Your task to perform on an android device: Clear the shopping cart on newegg. Image 0: 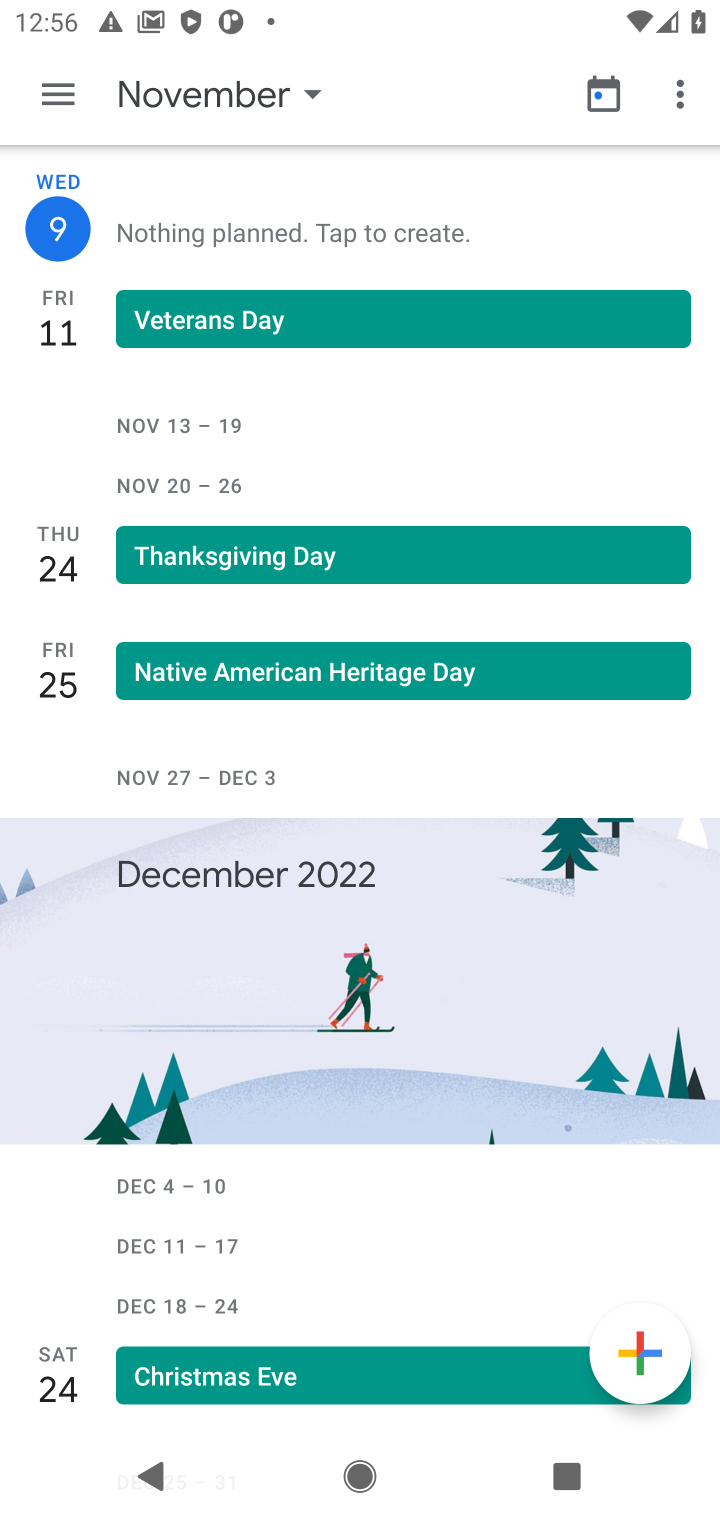
Step 0: press home button
Your task to perform on an android device: Clear the shopping cart on newegg. Image 1: 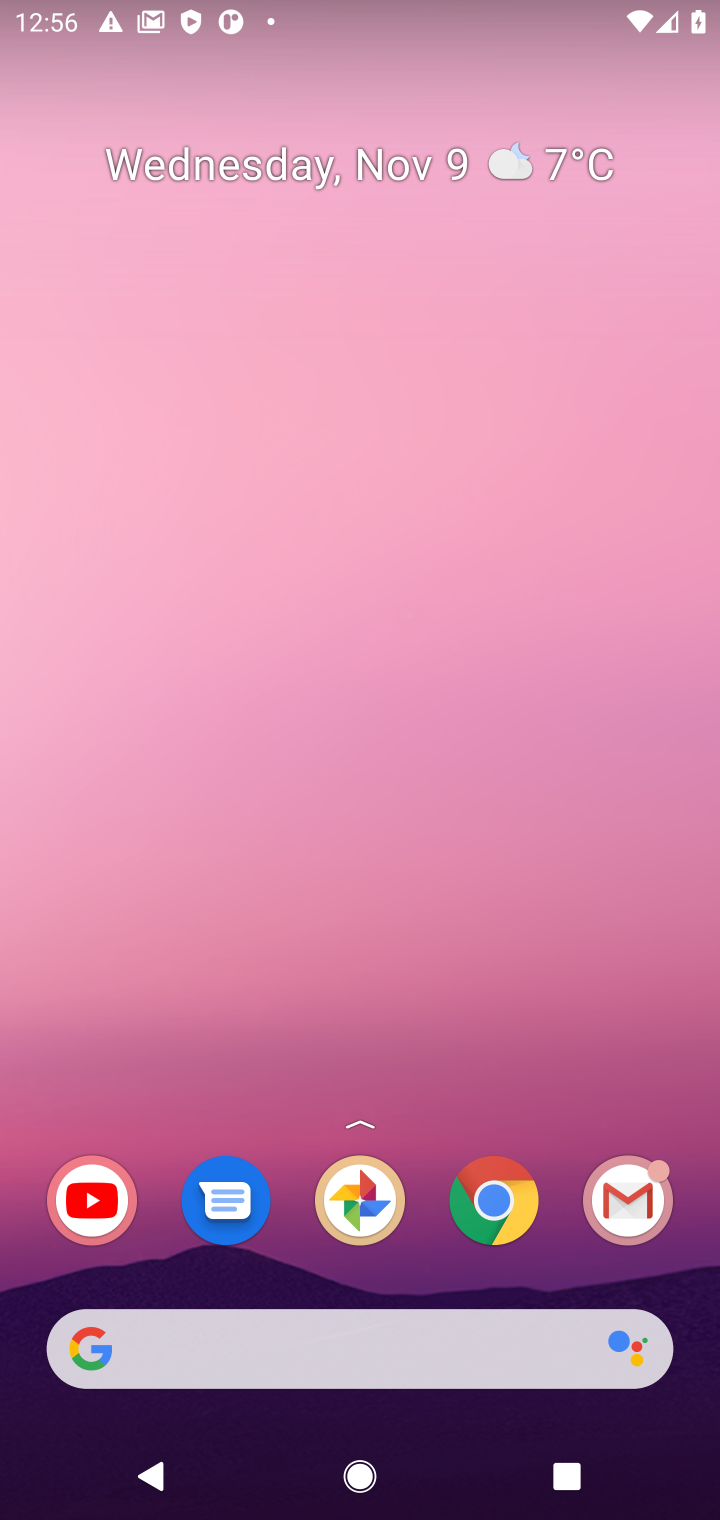
Step 1: click (247, 1317)
Your task to perform on an android device: Clear the shopping cart on newegg. Image 2: 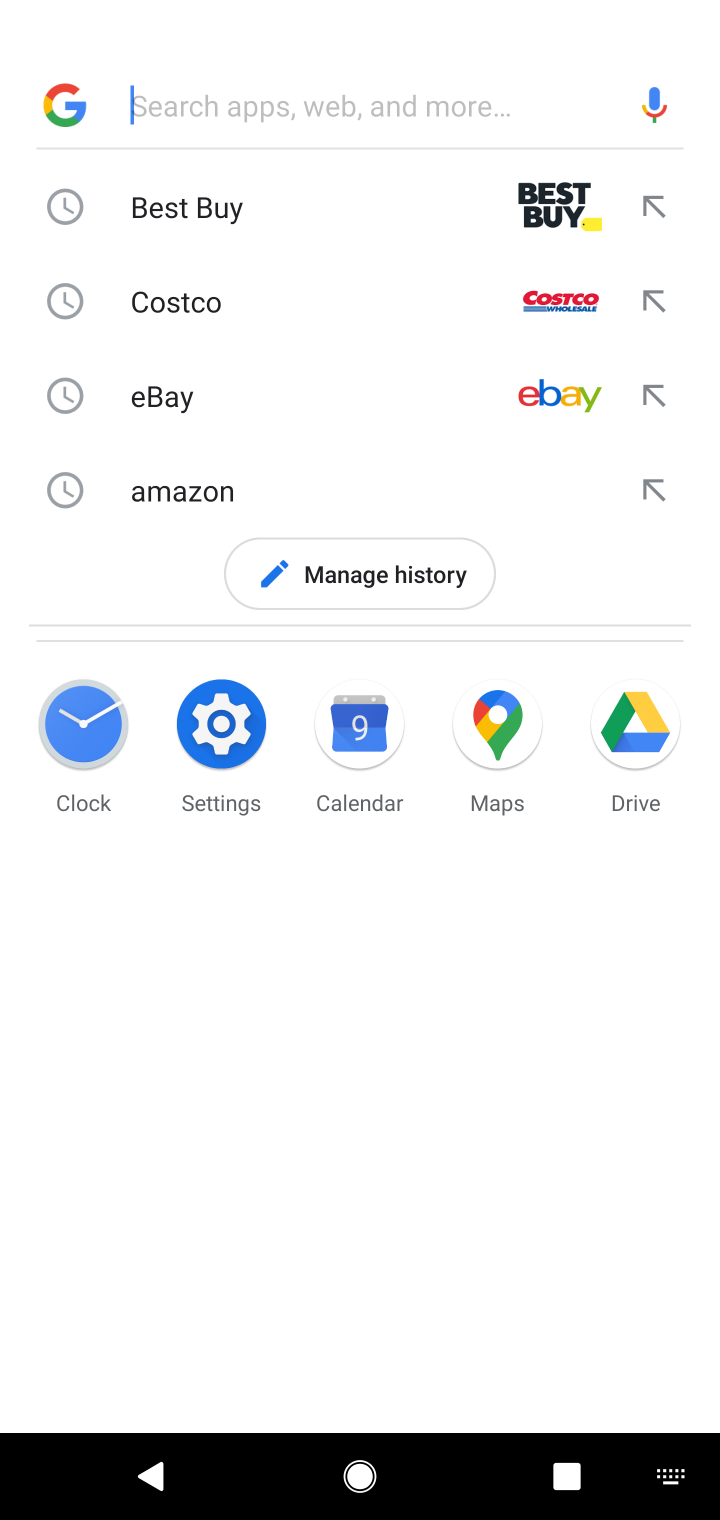
Step 2: type "newegg"
Your task to perform on an android device: Clear the shopping cart on newegg. Image 3: 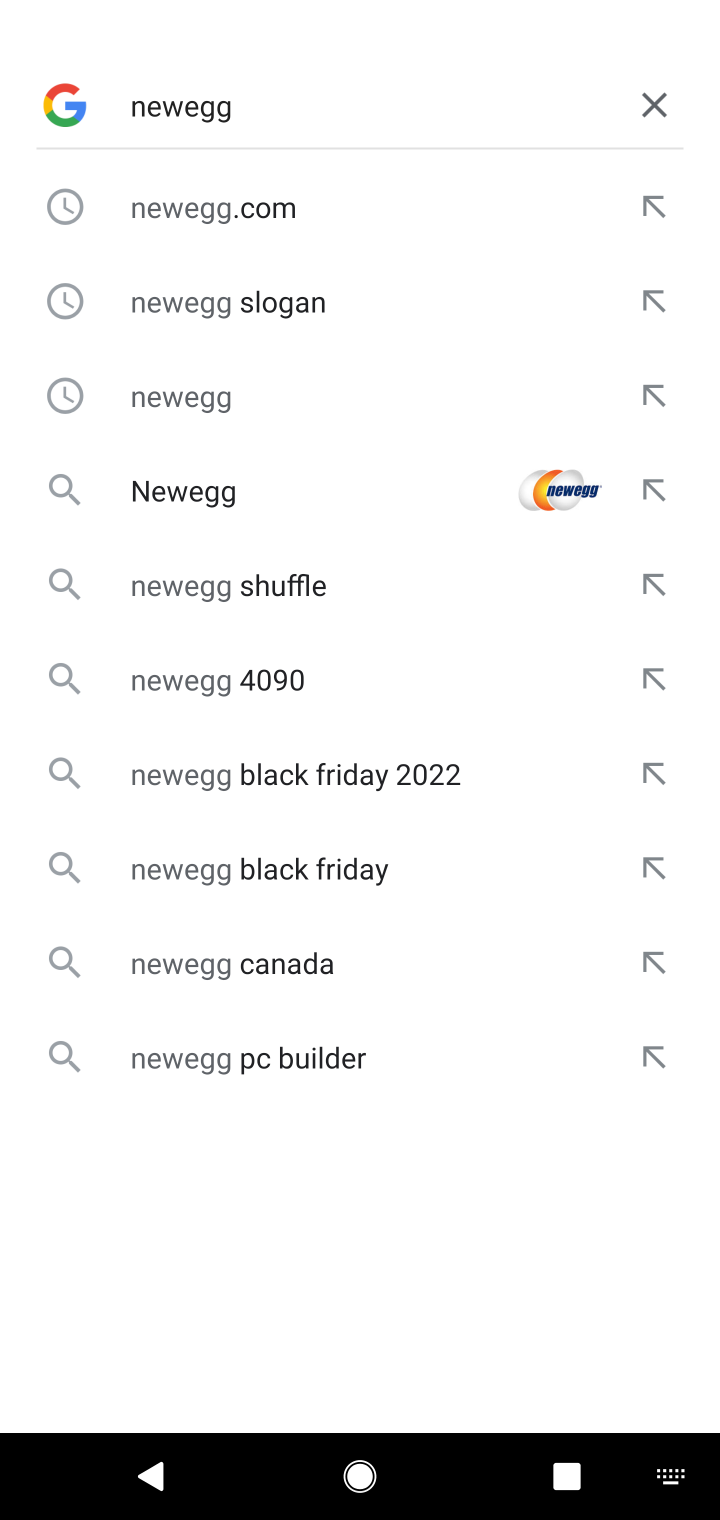
Step 3: click (334, 210)
Your task to perform on an android device: Clear the shopping cart on newegg. Image 4: 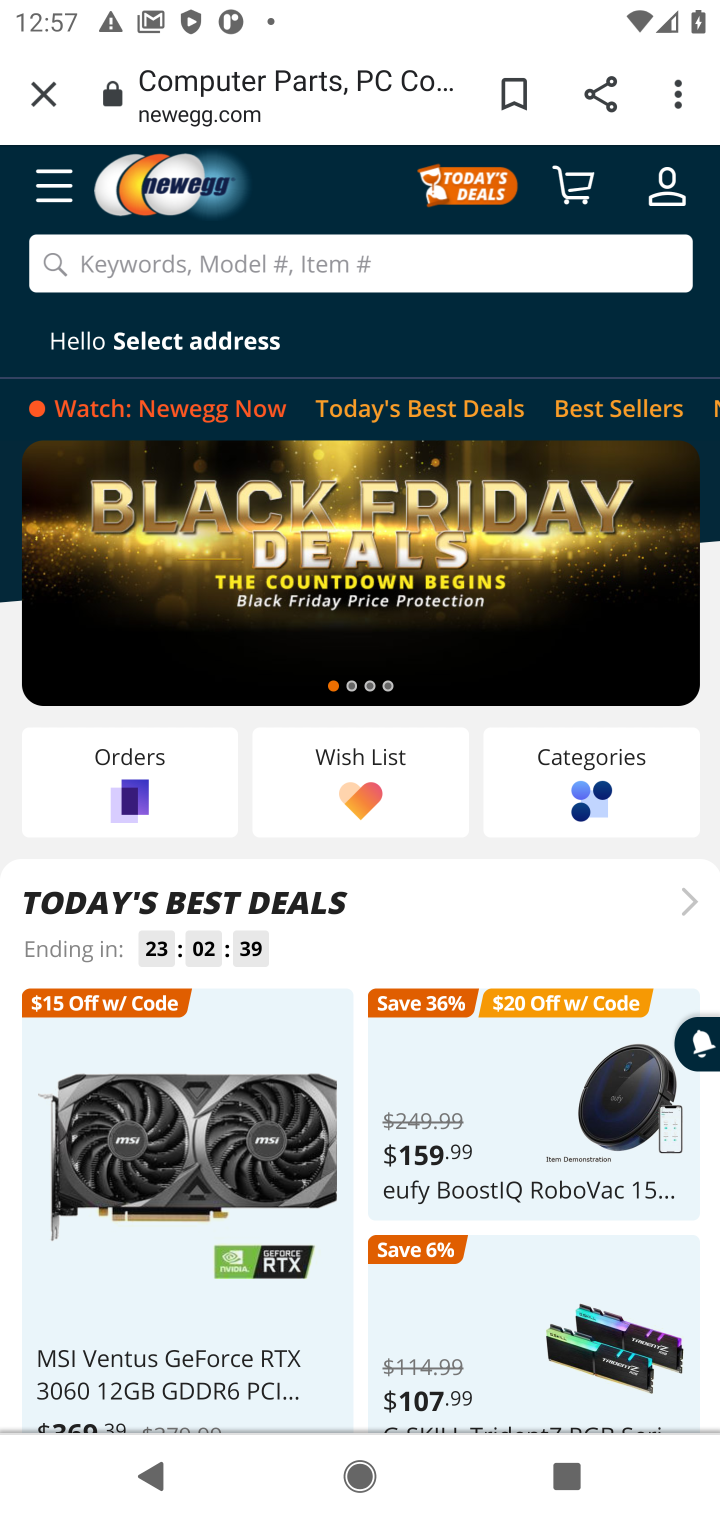
Step 4: click (298, 265)
Your task to perform on an android device: Clear the shopping cart on newegg. Image 5: 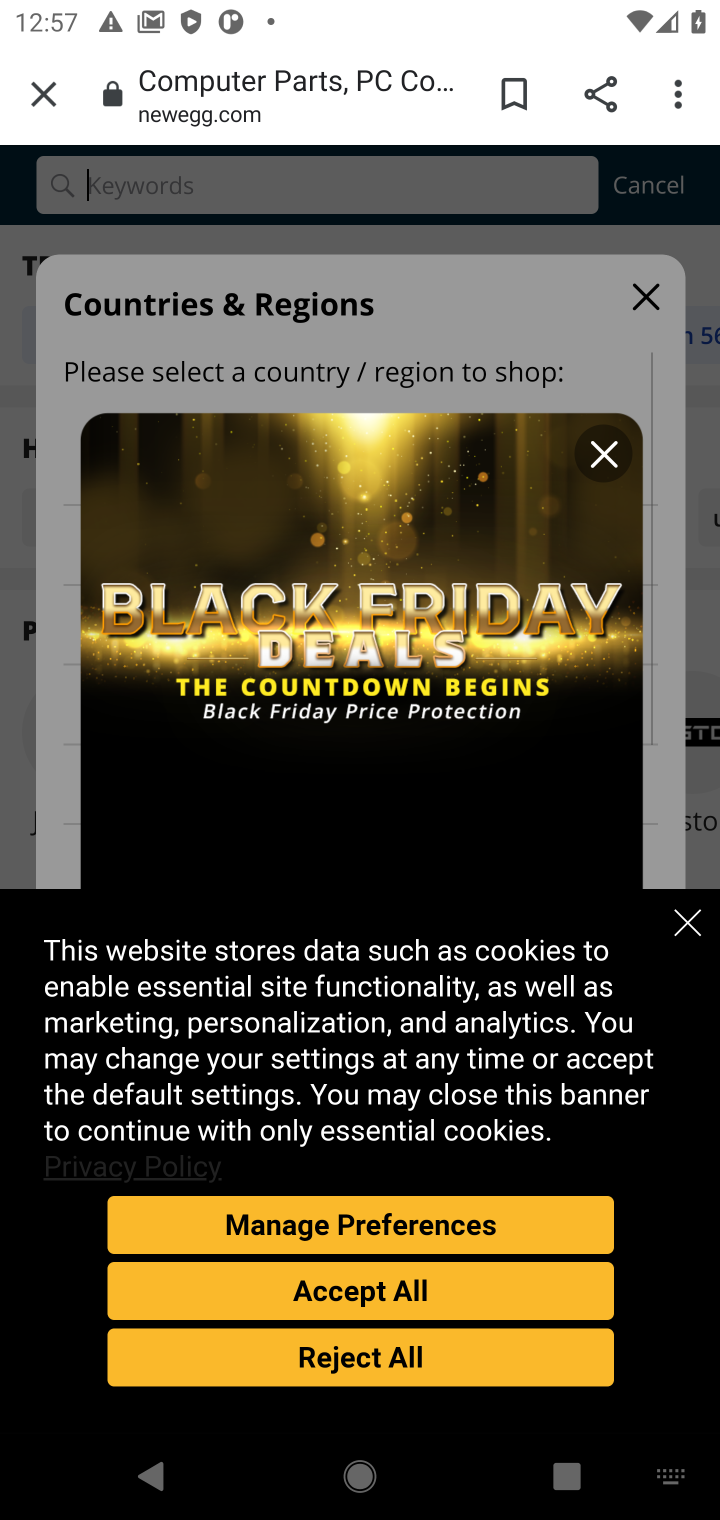
Step 5: task complete